Your task to perform on an android device: Add "usb-b" to the cart on costco.com, then select checkout. Image 0: 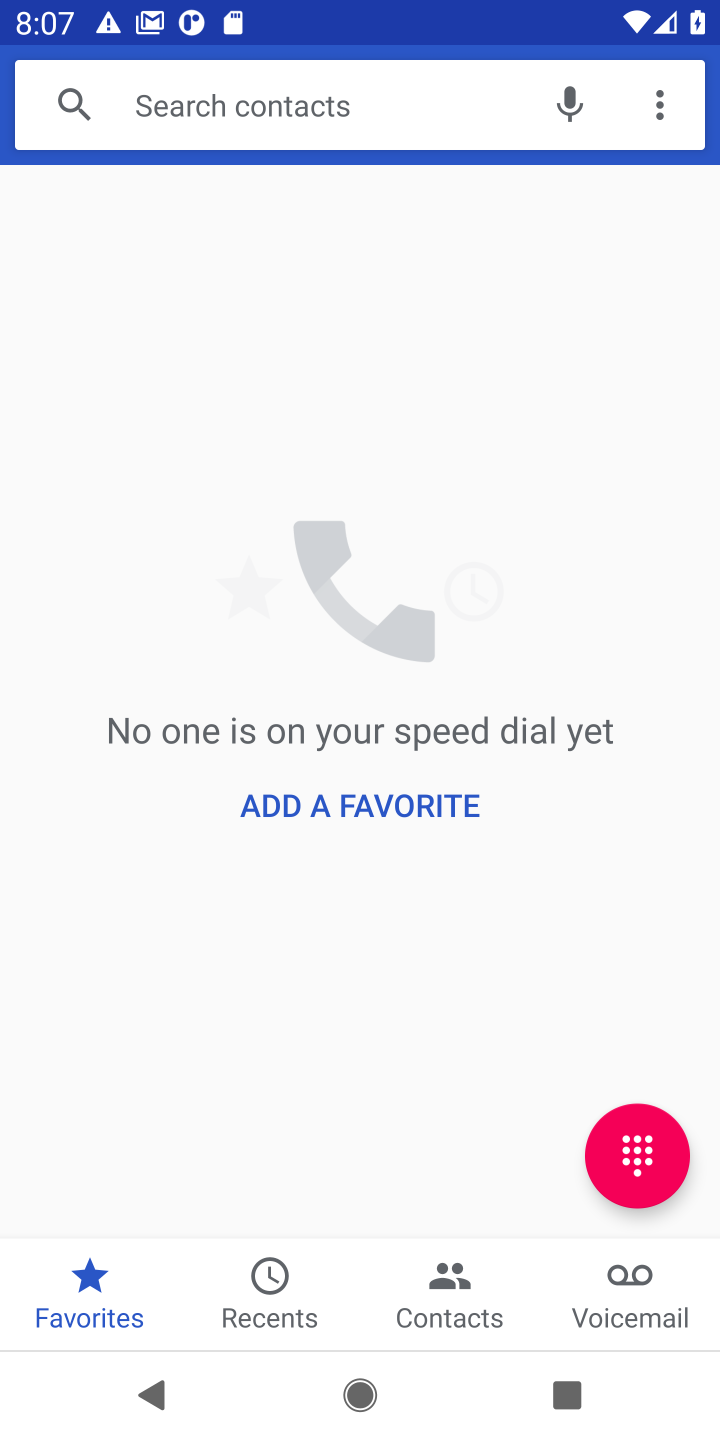
Step 0: press home button
Your task to perform on an android device: Add "usb-b" to the cart on costco.com, then select checkout. Image 1: 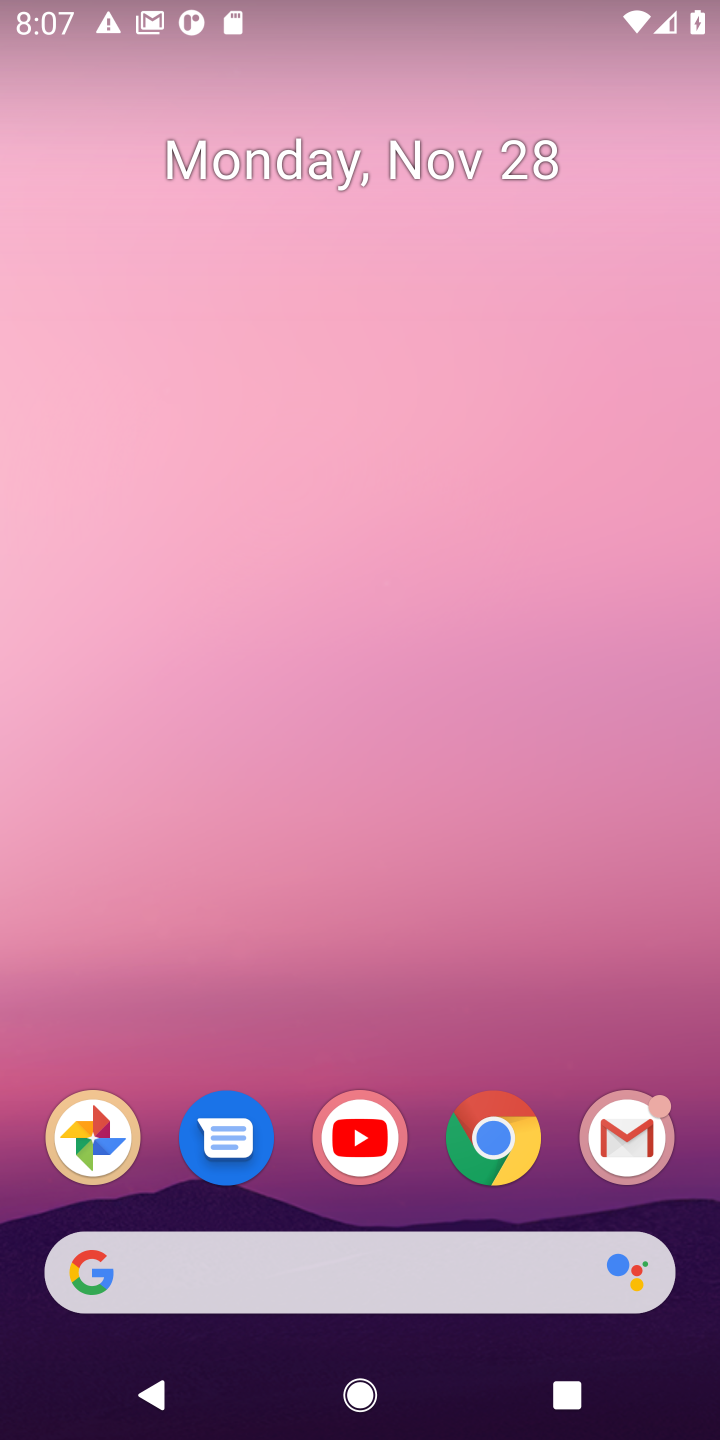
Step 1: click (492, 1149)
Your task to perform on an android device: Add "usb-b" to the cart on costco.com, then select checkout. Image 2: 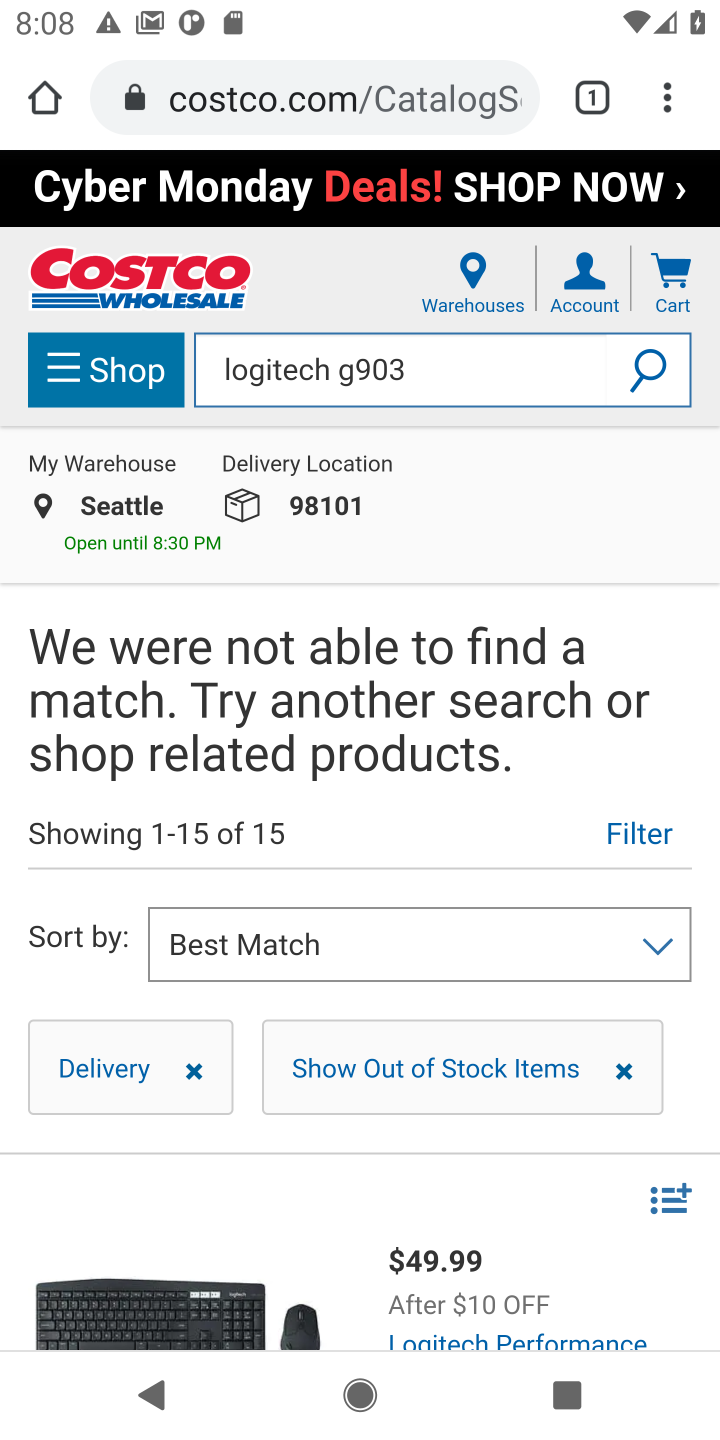
Step 2: click (385, 380)
Your task to perform on an android device: Add "usb-b" to the cart on costco.com, then select checkout. Image 3: 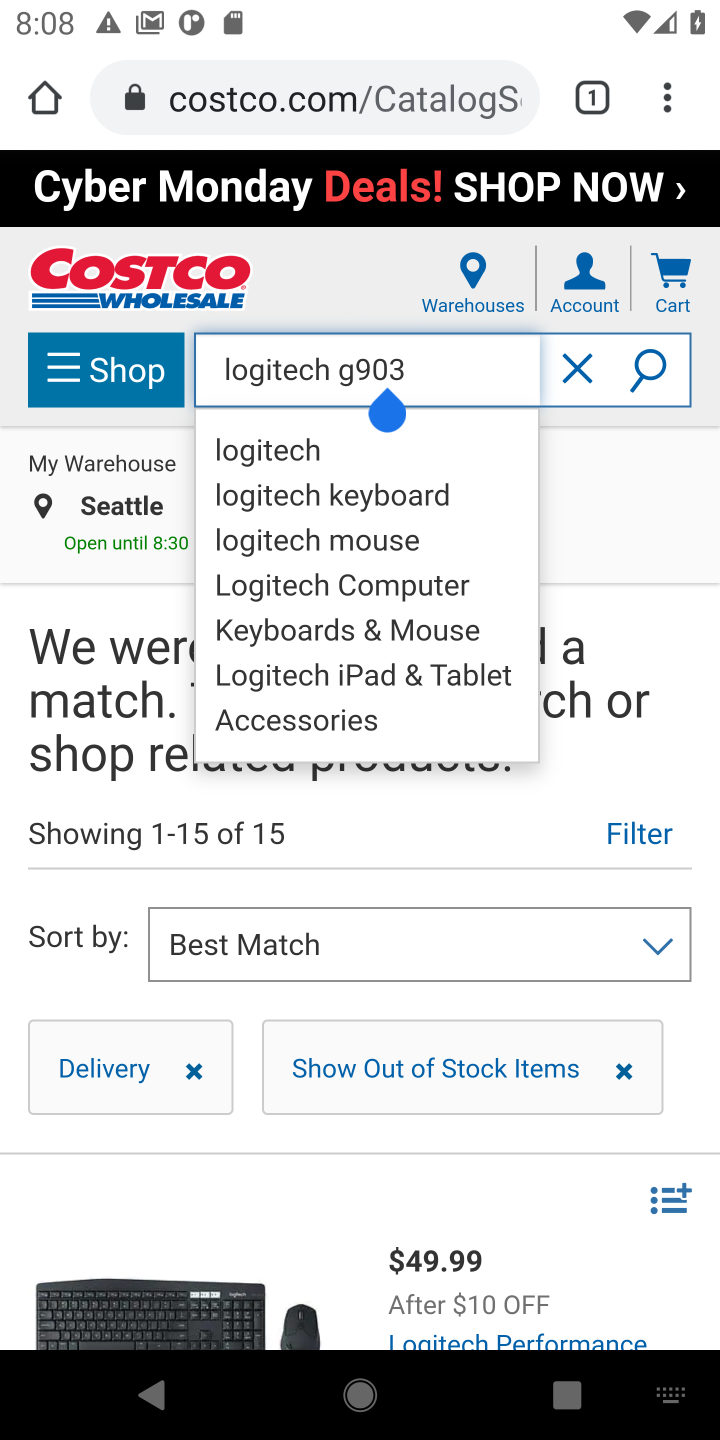
Step 3: click (569, 367)
Your task to perform on an android device: Add "usb-b" to the cart on costco.com, then select checkout. Image 4: 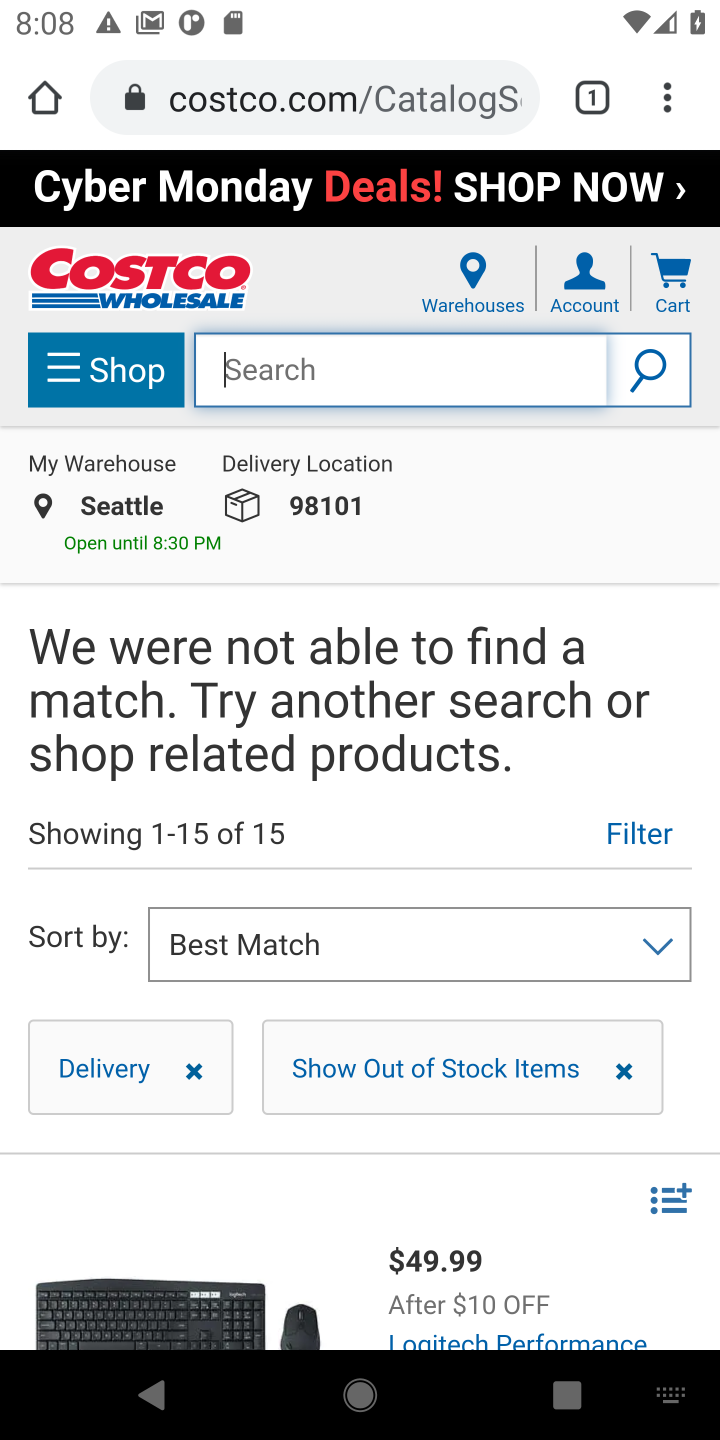
Step 4: type "usb-b"
Your task to perform on an android device: Add "usb-b" to the cart on costco.com, then select checkout. Image 5: 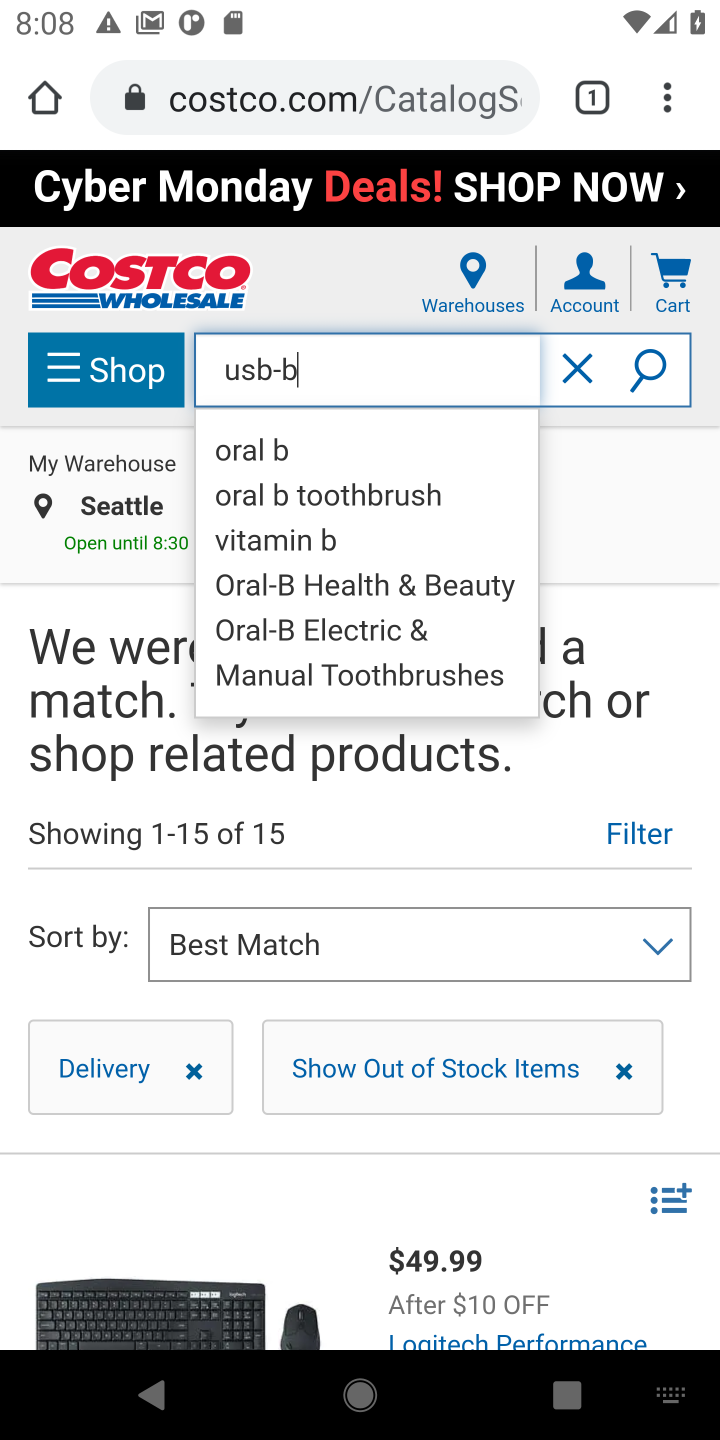
Step 5: click (648, 358)
Your task to perform on an android device: Add "usb-b" to the cart on costco.com, then select checkout. Image 6: 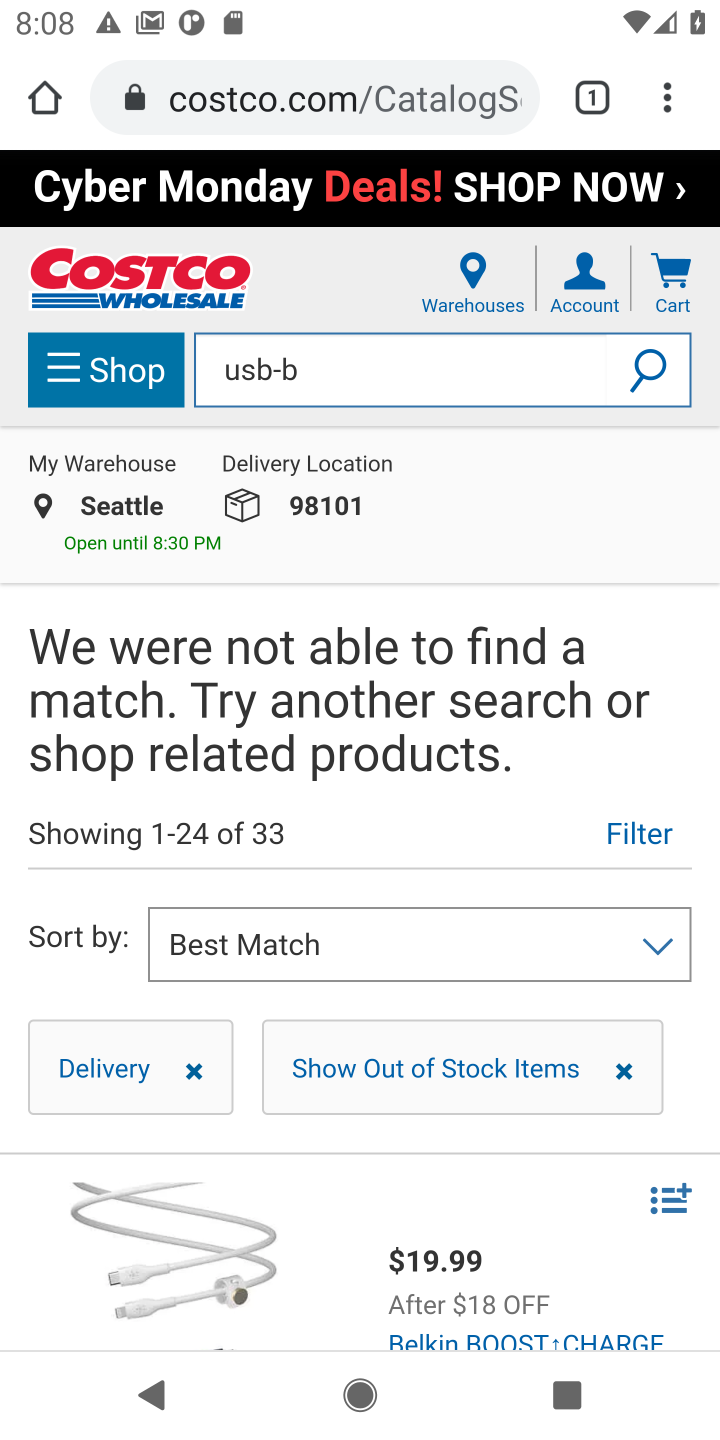
Step 6: task complete